Your task to perform on an android device: Go to Google maps Image 0: 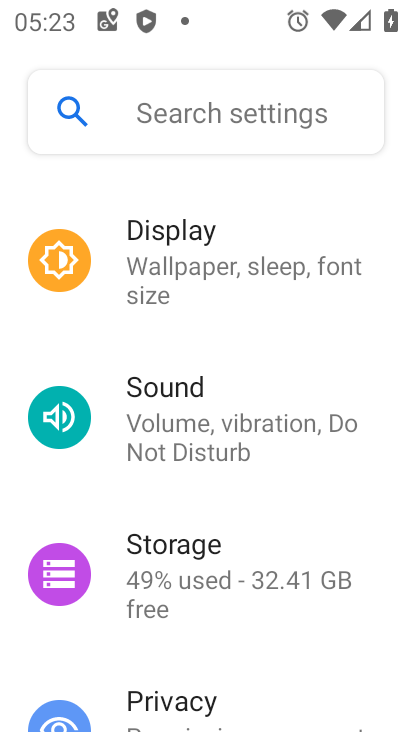
Step 0: press home button
Your task to perform on an android device: Go to Google maps Image 1: 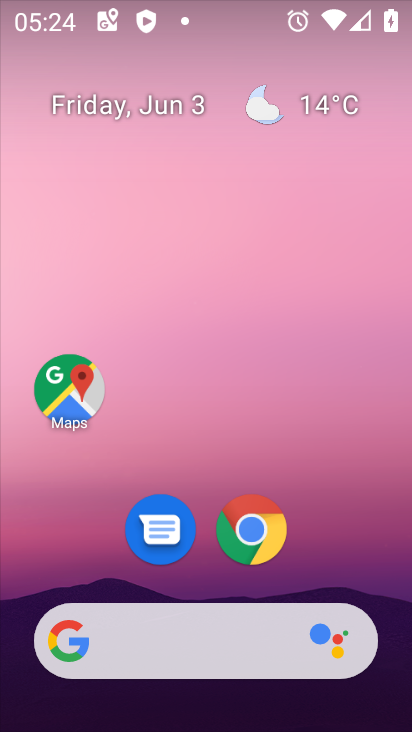
Step 1: click (68, 388)
Your task to perform on an android device: Go to Google maps Image 2: 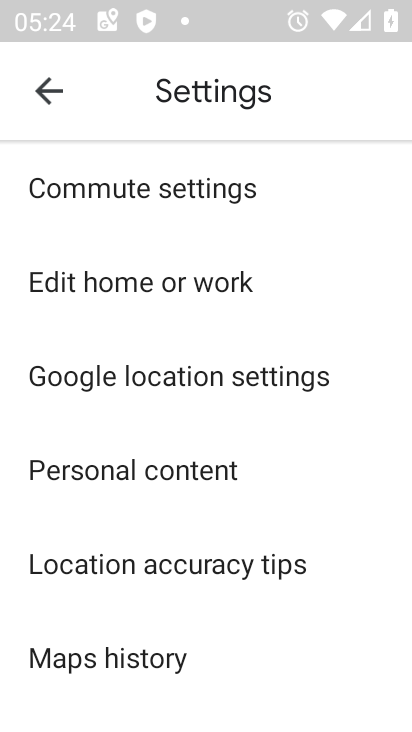
Step 2: click (59, 96)
Your task to perform on an android device: Go to Google maps Image 3: 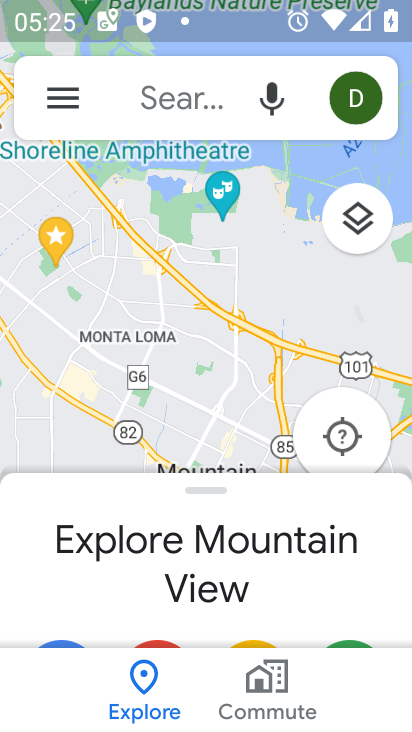
Step 3: click (54, 95)
Your task to perform on an android device: Go to Google maps Image 4: 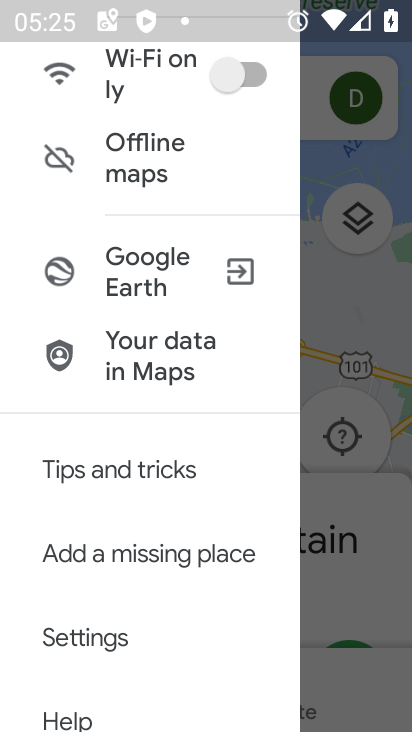
Step 4: task complete